Your task to perform on an android device: allow cookies in the chrome app Image 0: 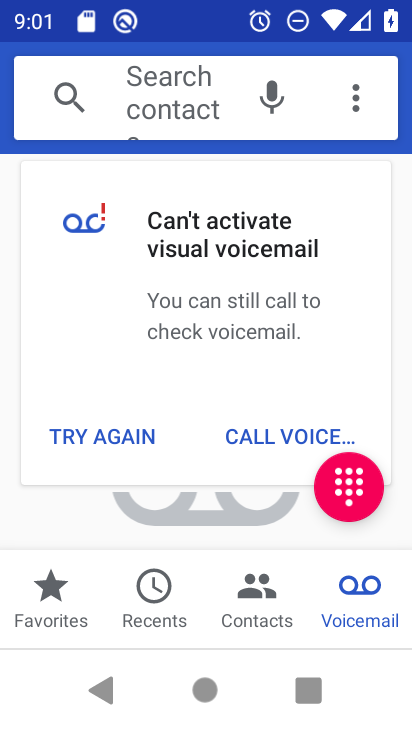
Step 0: press home button
Your task to perform on an android device: allow cookies in the chrome app Image 1: 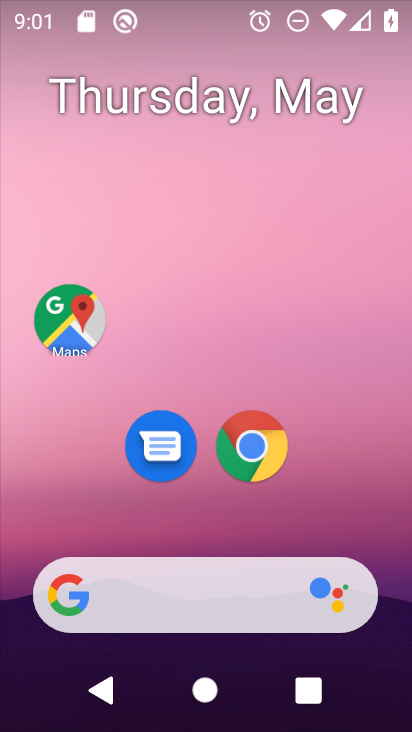
Step 1: drag from (394, 519) to (399, 61)
Your task to perform on an android device: allow cookies in the chrome app Image 2: 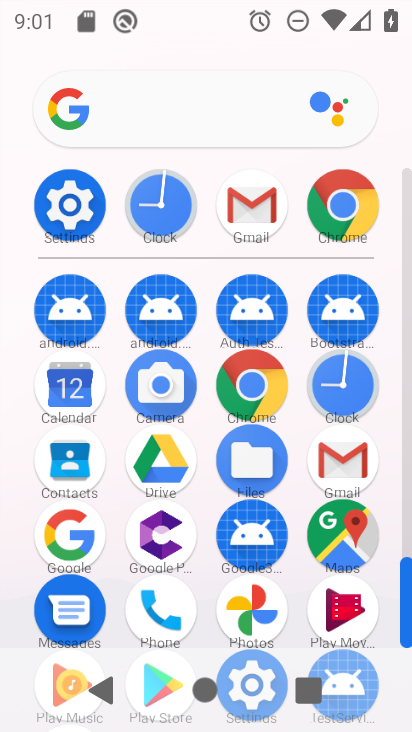
Step 2: click (347, 210)
Your task to perform on an android device: allow cookies in the chrome app Image 3: 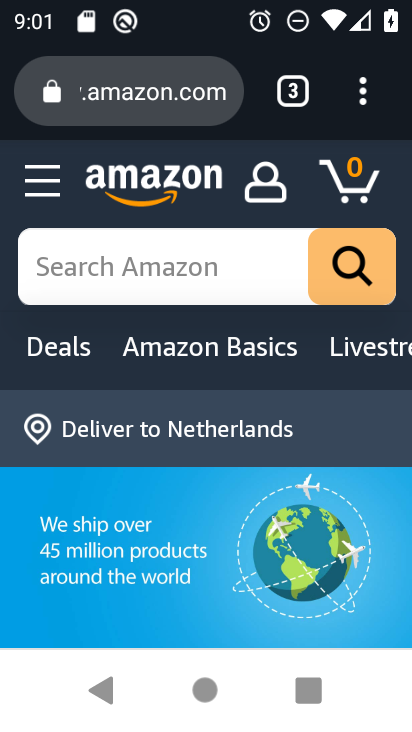
Step 3: drag from (370, 114) to (302, 483)
Your task to perform on an android device: allow cookies in the chrome app Image 4: 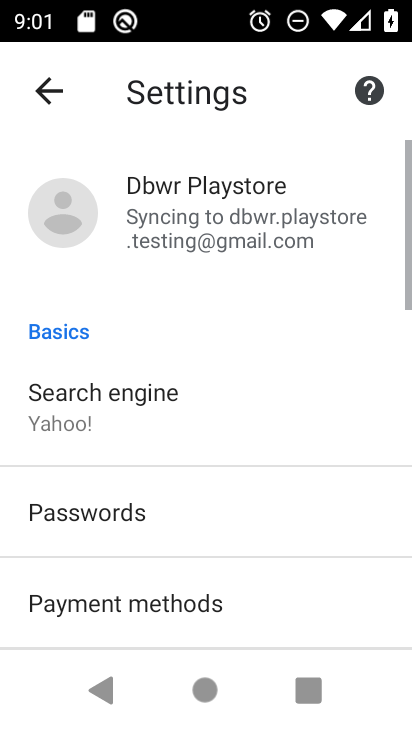
Step 4: drag from (290, 604) to (300, 227)
Your task to perform on an android device: allow cookies in the chrome app Image 5: 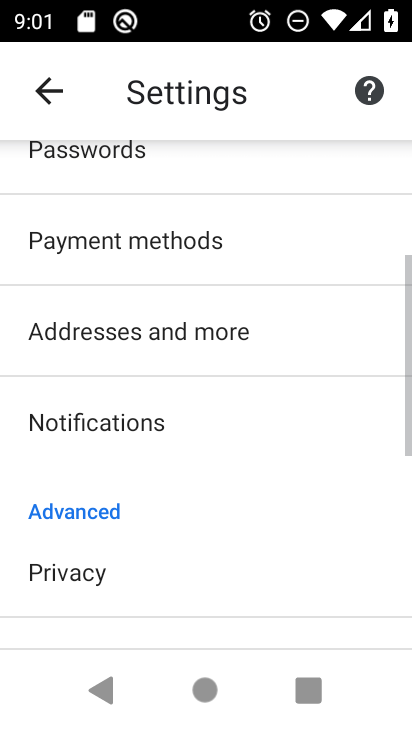
Step 5: drag from (302, 574) to (300, 224)
Your task to perform on an android device: allow cookies in the chrome app Image 6: 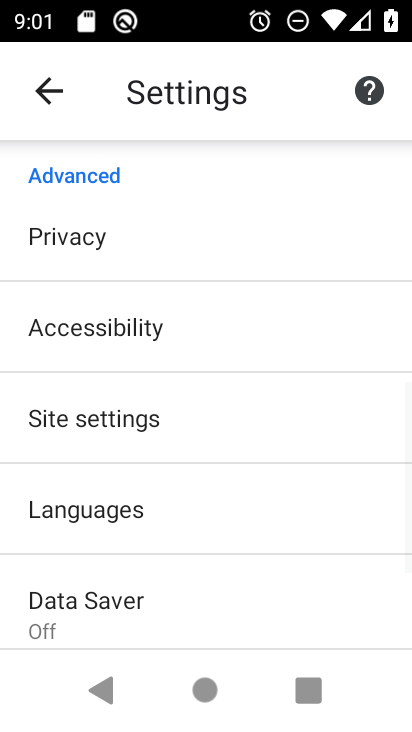
Step 6: drag from (316, 535) to (317, 195)
Your task to perform on an android device: allow cookies in the chrome app Image 7: 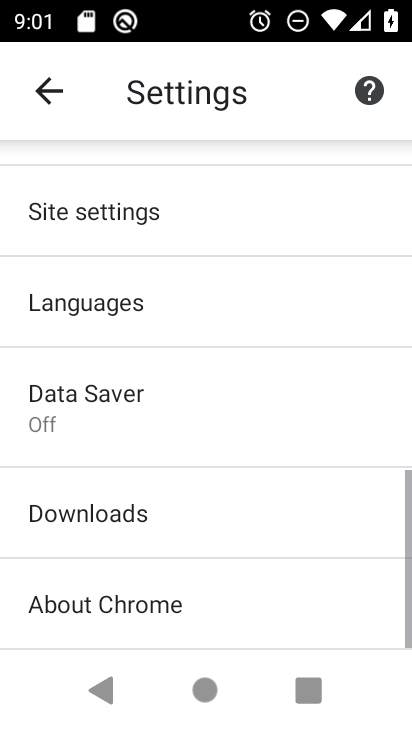
Step 7: drag from (266, 584) to (275, 309)
Your task to perform on an android device: allow cookies in the chrome app Image 8: 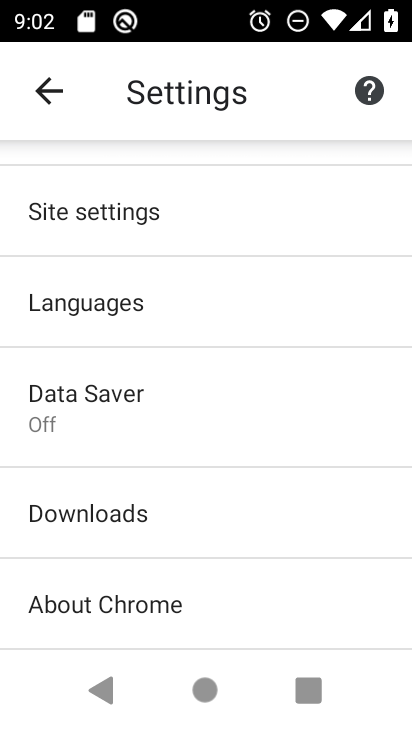
Step 8: drag from (238, 201) to (207, 538)
Your task to perform on an android device: allow cookies in the chrome app Image 9: 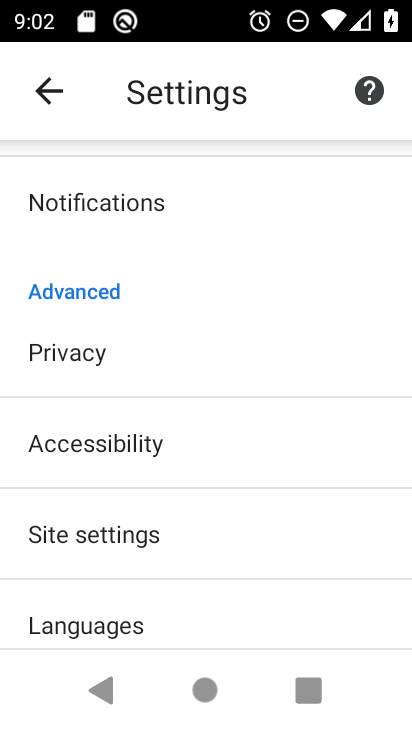
Step 9: click (155, 543)
Your task to perform on an android device: allow cookies in the chrome app Image 10: 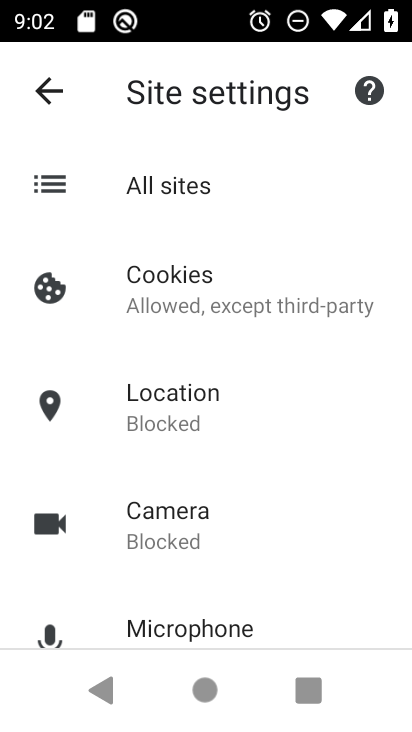
Step 10: click (218, 297)
Your task to perform on an android device: allow cookies in the chrome app Image 11: 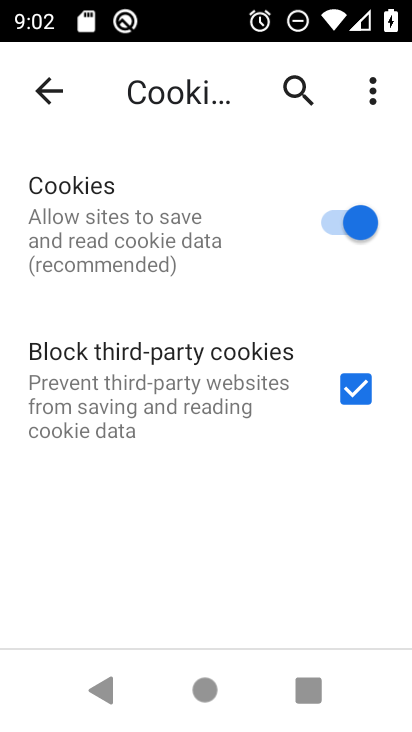
Step 11: task complete